Your task to perform on an android device: Do I have any events tomorrow? Image 0: 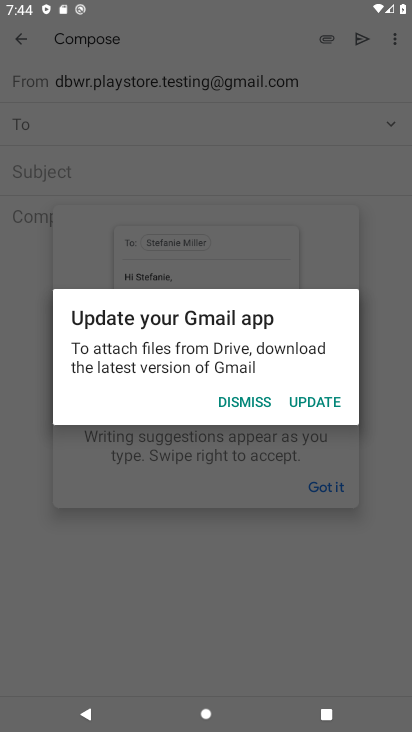
Step 0: press home button
Your task to perform on an android device: Do I have any events tomorrow? Image 1: 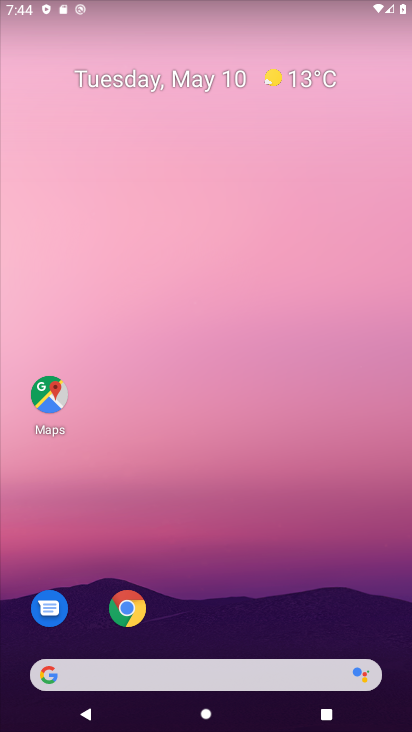
Step 1: drag from (155, 680) to (269, 51)
Your task to perform on an android device: Do I have any events tomorrow? Image 2: 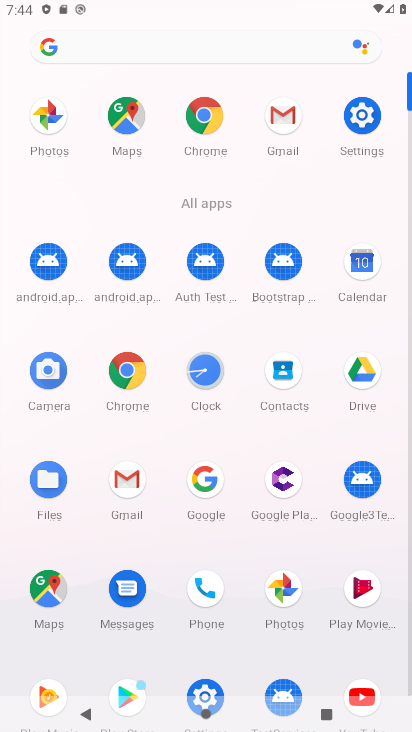
Step 2: click (364, 267)
Your task to perform on an android device: Do I have any events tomorrow? Image 3: 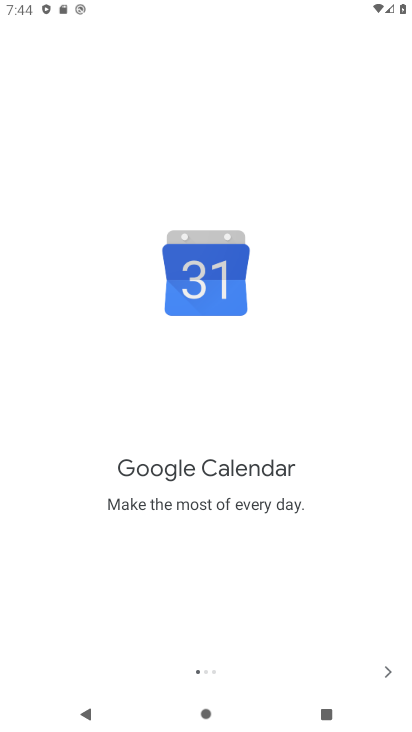
Step 3: click (392, 668)
Your task to perform on an android device: Do I have any events tomorrow? Image 4: 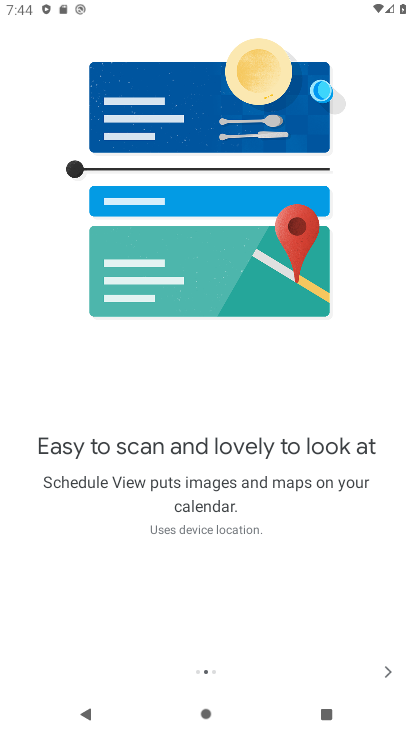
Step 4: click (392, 668)
Your task to perform on an android device: Do I have any events tomorrow? Image 5: 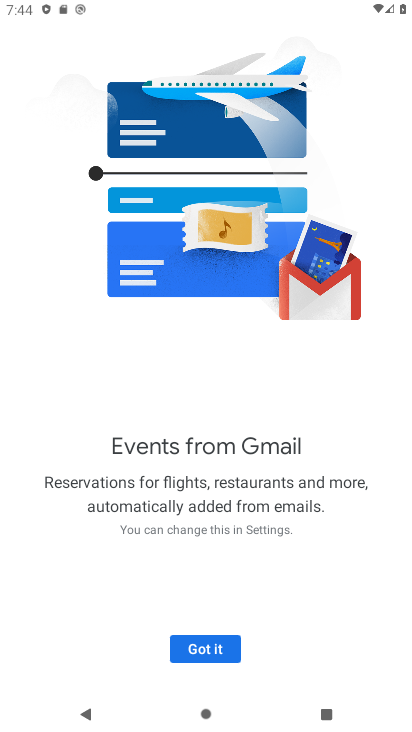
Step 5: click (216, 646)
Your task to perform on an android device: Do I have any events tomorrow? Image 6: 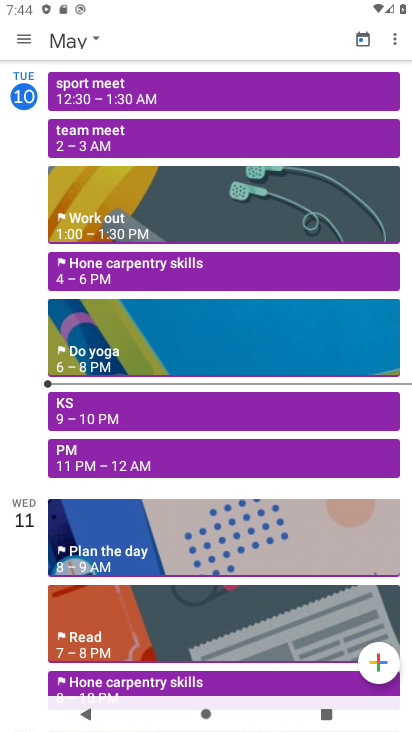
Step 6: click (54, 40)
Your task to perform on an android device: Do I have any events tomorrow? Image 7: 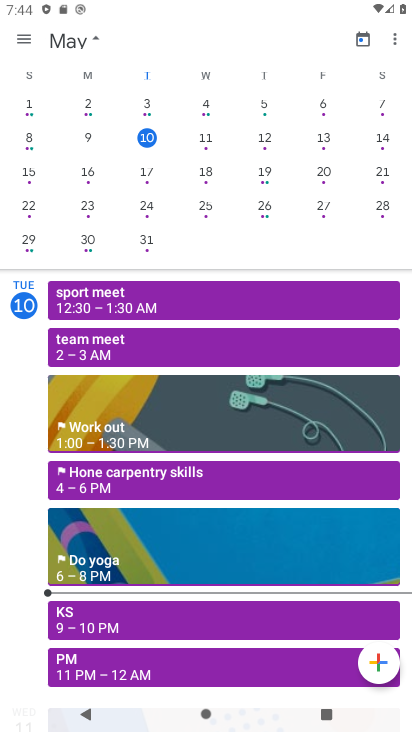
Step 7: click (205, 140)
Your task to perform on an android device: Do I have any events tomorrow? Image 8: 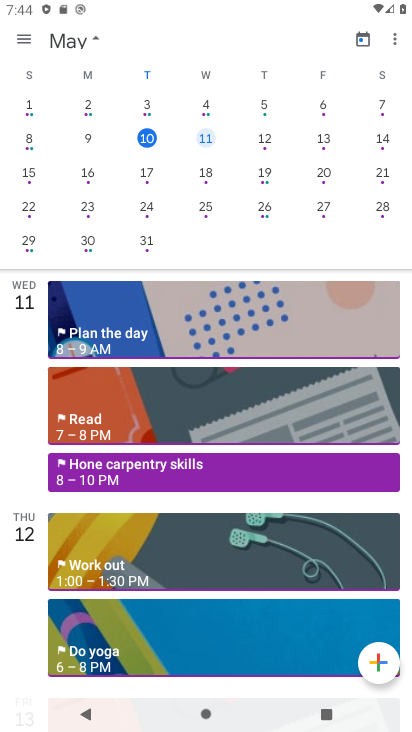
Step 8: click (22, 40)
Your task to perform on an android device: Do I have any events tomorrow? Image 9: 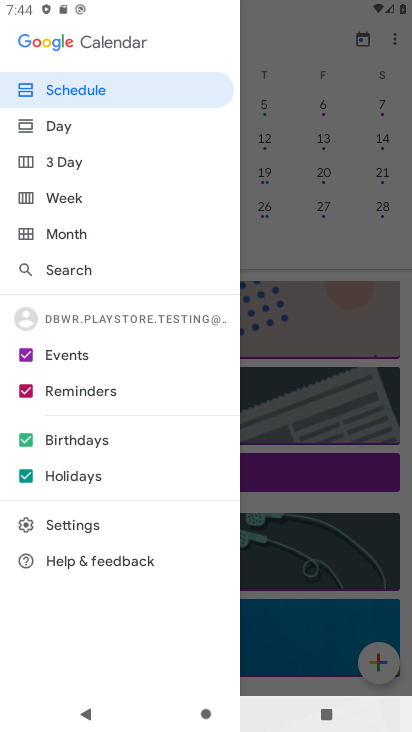
Step 9: click (70, 124)
Your task to perform on an android device: Do I have any events tomorrow? Image 10: 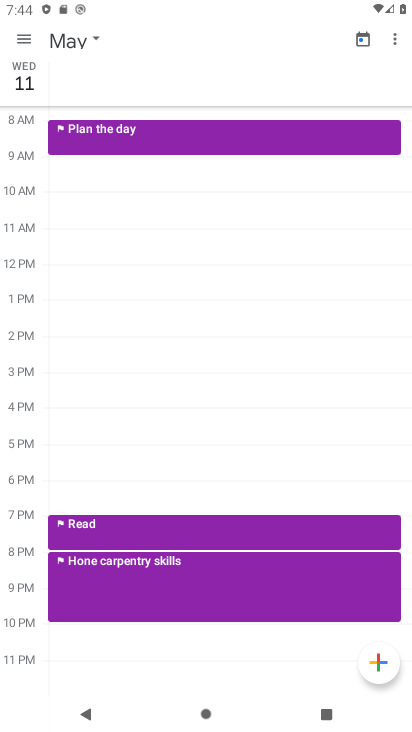
Step 10: click (26, 35)
Your task to perform on an android device: Do I have any events tomorrow? Image 11: 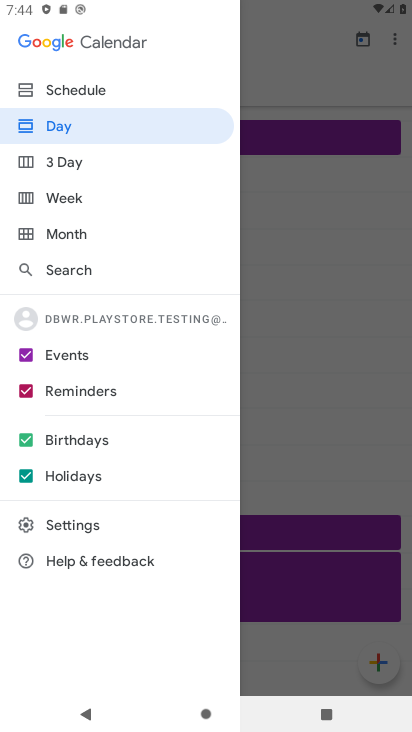
Step 11: click (82, 87)
Your task to perform on an android device: Do I have any events tomorrow? Image 12: 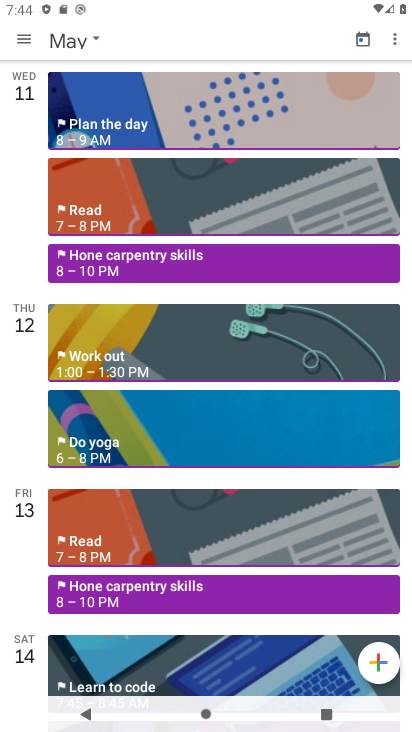
Step 12: click (134, 258)
Your task to perform on an android device: Do I have any events tomorrow? Image 13: 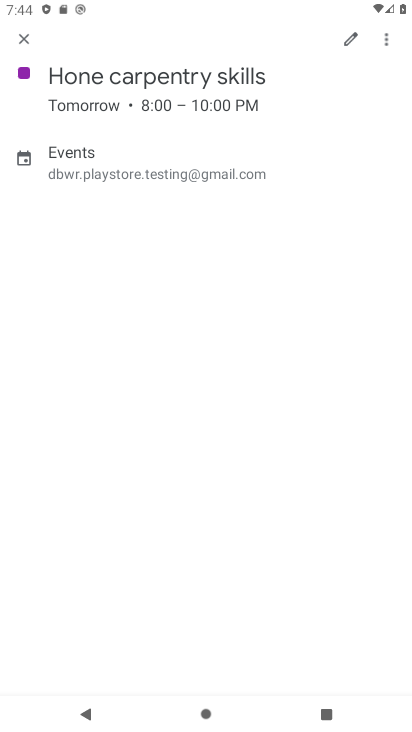
Step 13: task complete